Your task to perform on an android device: add a contact Image 0: 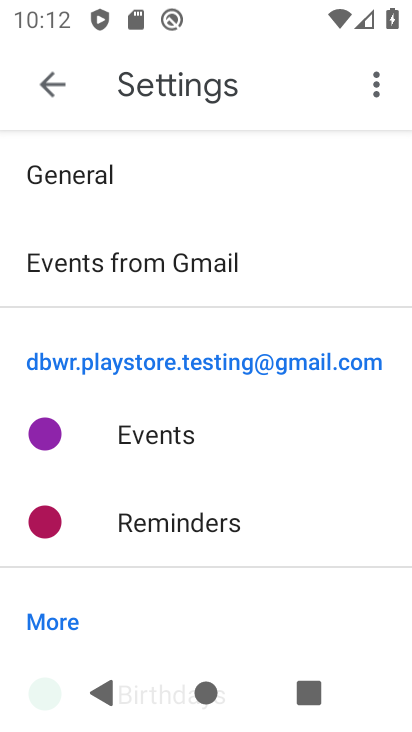
Step 0: press home button
Your task to perform on an android device: add a contact Image 1: 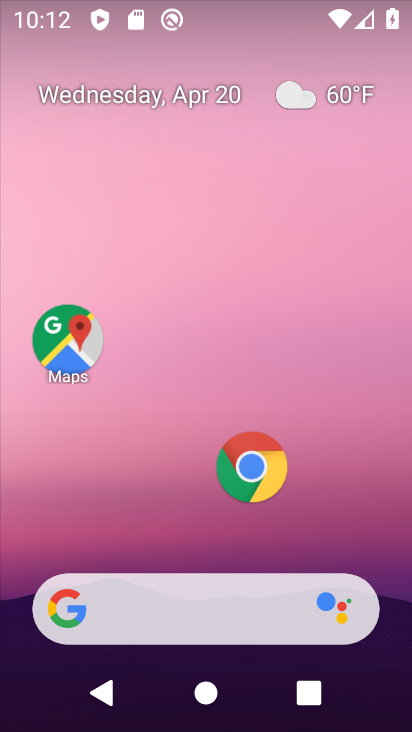
Step 1: drag from (310, 516) to (311, 47)
Your task to perform on an android device: add a contact Image 2: 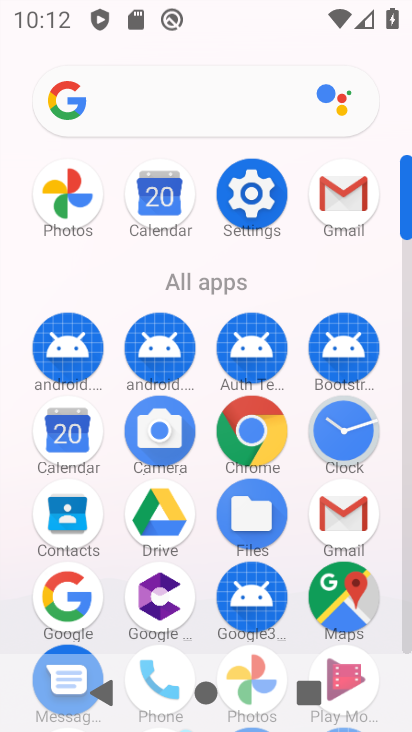
Step 2: click (59, 506)
Your task to perform on an android device: add a contact Image 3: 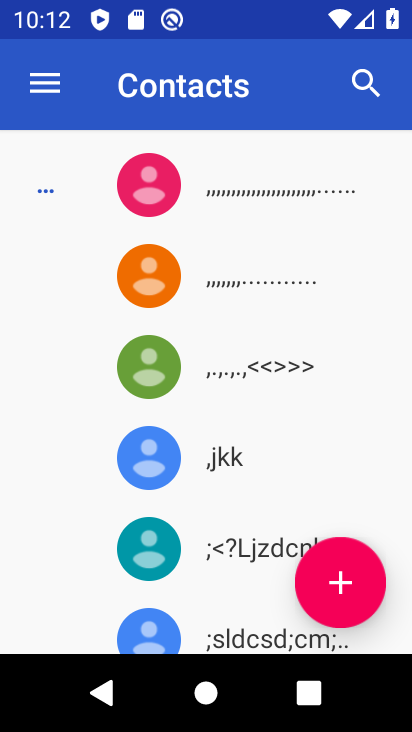
Step 3: click (334, 575)
Your task to perform on an android device: add a contact Image 4: 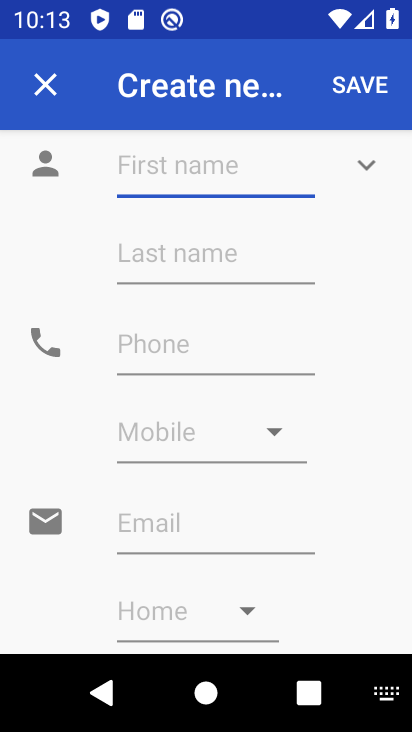
Step 4: type "mkoplnhytgb"
Your task to perform on an android device: add a contact Image 5: 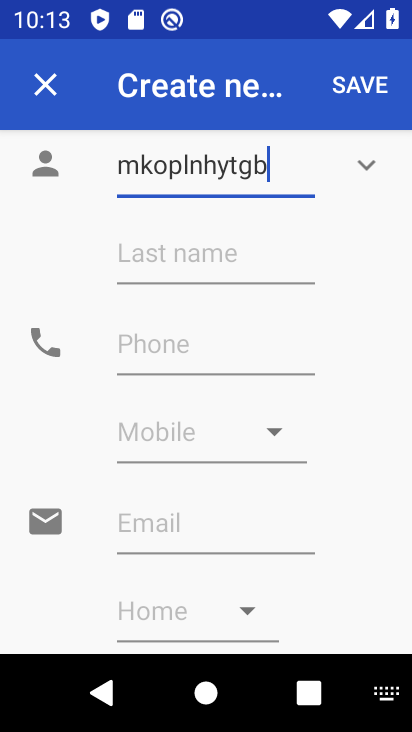
Step 5: click (187, 339)
Your task to perform on an android device: add a contact Image 6: 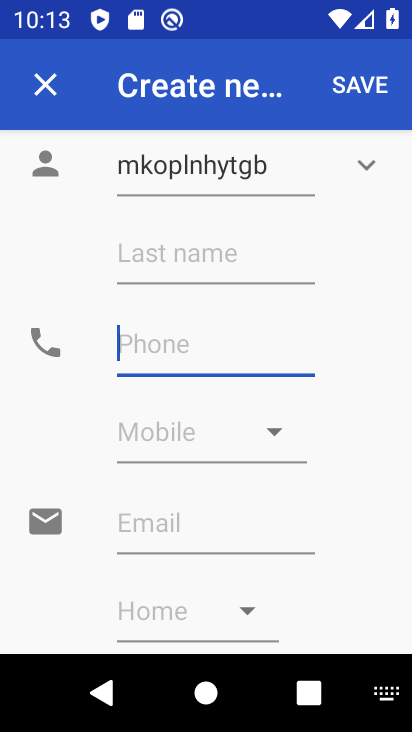
Step 6: type "21221235567"
Your task to perform on an android device: add a contact Image 7: 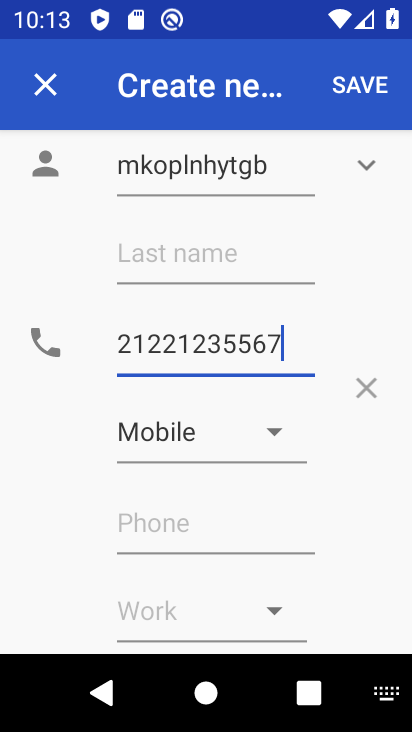
Step 7: click (381, 98)
Your task to perform on an android device: add a contact Image 8: 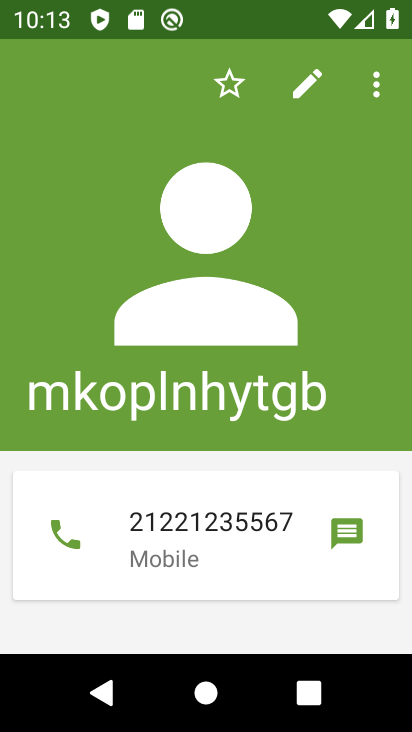
Step 8: task complete